Your task to perform on an android device: change the upload size in google photos Image 0: 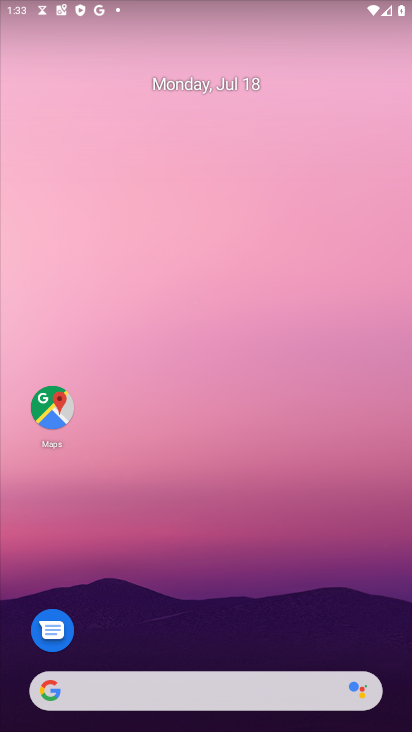
Step 0: drag from (238, 698) to (390, 515)
Your task to perform on an android device: change the upload size in google photos Image 1: 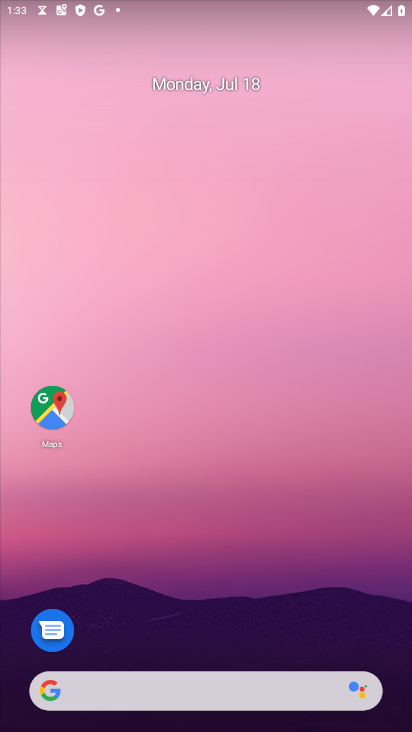
Step 1: drag from (230, 661) to (253, 10)
Your task to perform on an android device: change the upload size in google photos Image 2: 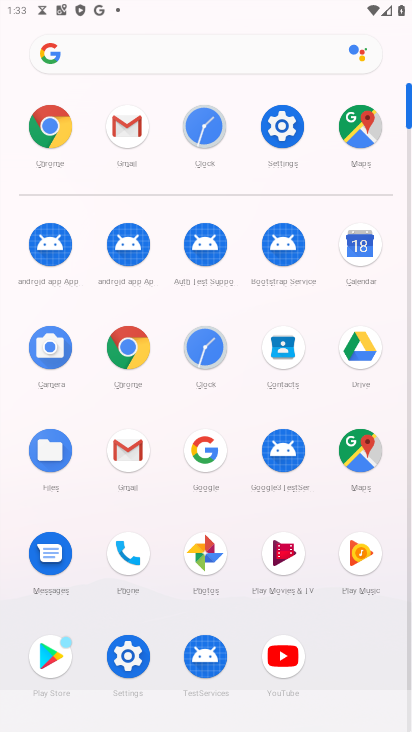
Step 2: click (213, 557)
Your task to perform on an android device: change the upload size in google photos Image 3: 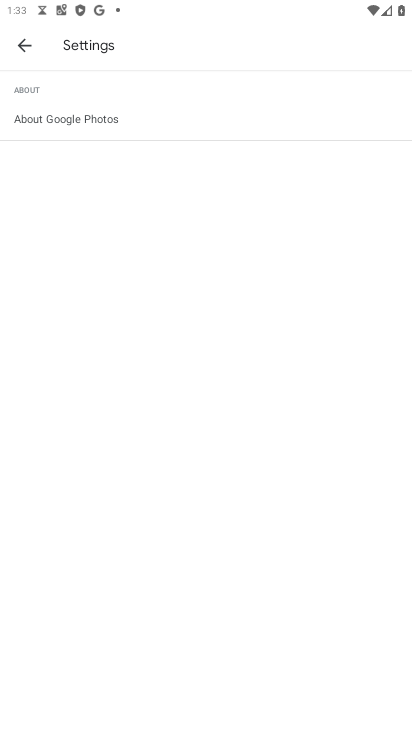
Step 3: press back button
Your task to perform on an android device: change the upload size in google photos Image 4: 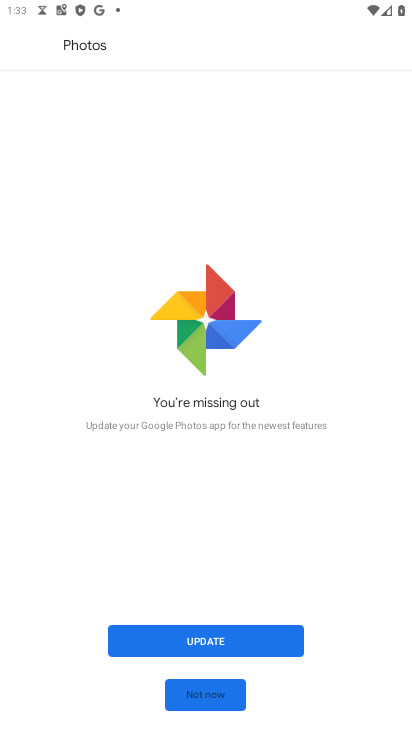
Step 4: click (241, 648)
Your task to perform on an android device: change the upload size in google photos Image 5: 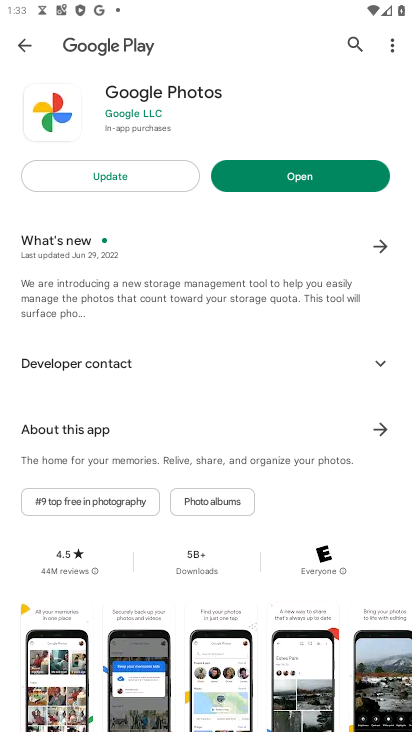
Step 5: click (152, 169)
Your task to perform on an android device: change the upload size in google photos Image 6: 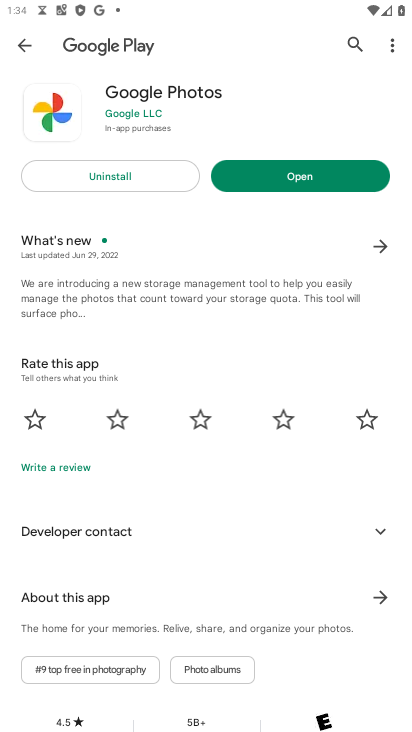
Step 6: click (336, 176)
Your task to perform on an android device: change the upload size in google photos Image 7: 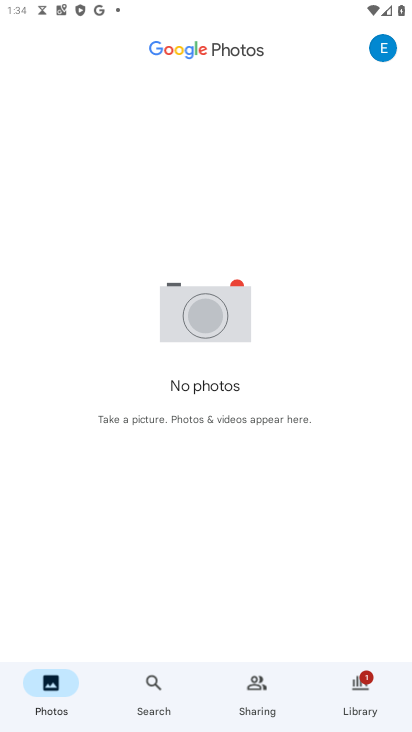
Step 7: click (374, 45)
Your task to perform on an android device: change the upload size in google photos Image 8: 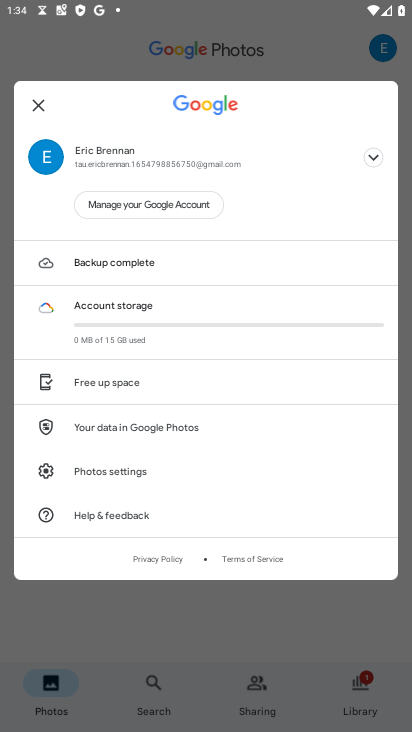
Step 8: click (122, 466)
Your task to perform on an android device: change the upload size in google photos Image 9: 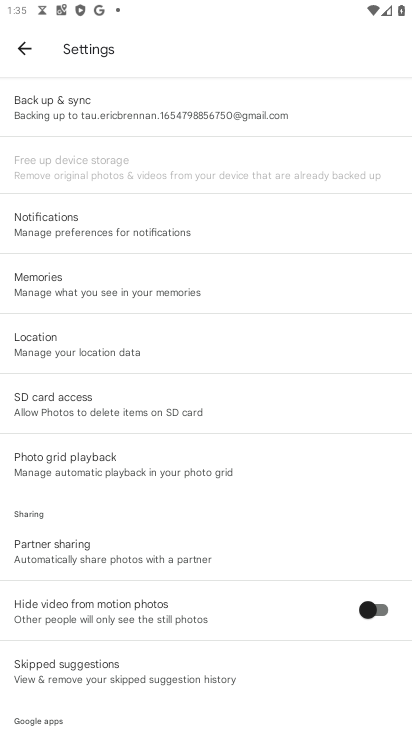
Step 9: click (209, 107)
Your task to perform on an android device: change the upload size in google photos Image 10: 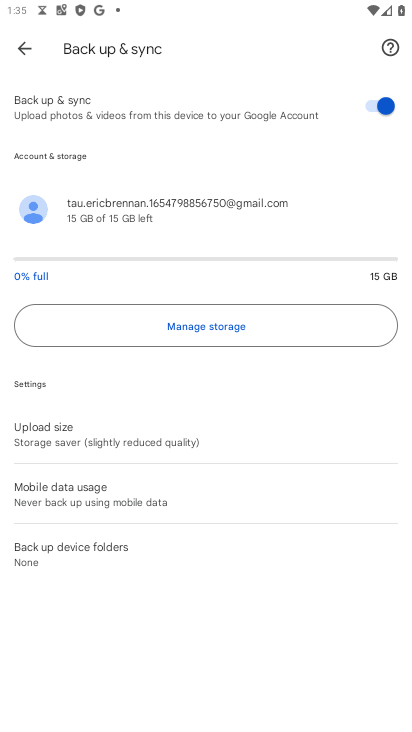
Step 10: click (152, 449)
Your task to perform on an android device: change the upload size in google photos Image 11: 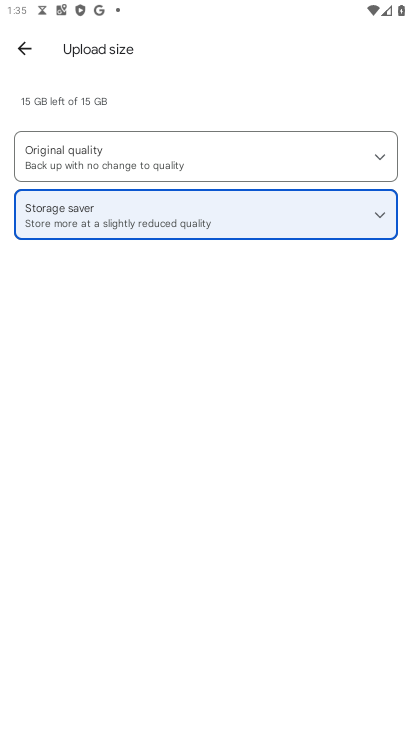
Step 11: click (105, 163)
Your task to perform on an android device: change the upload size in google photos Image 12: 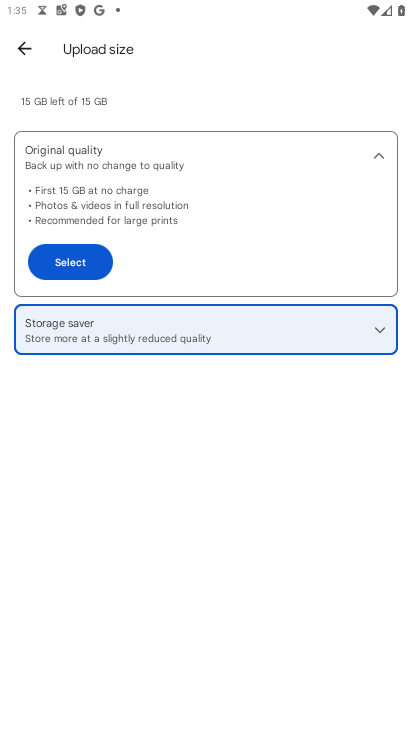
Step 12: click (67, 250)
Your task to perform on an android device: change the upload size in google photos Image 13: 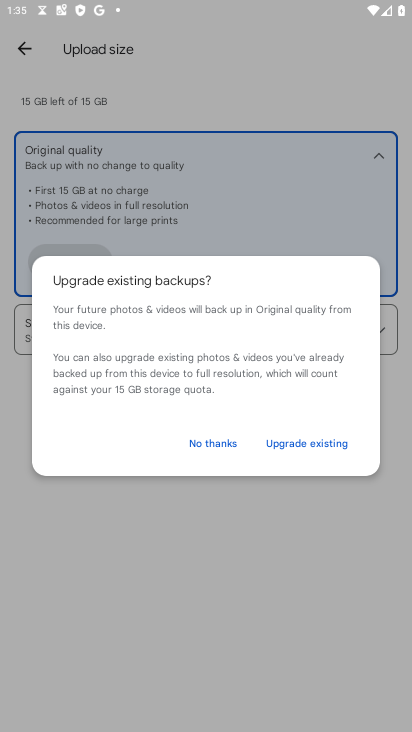
Step 13: click (295, 444)
Your task to perform on an android device: change the upload size in google photos Image 14: 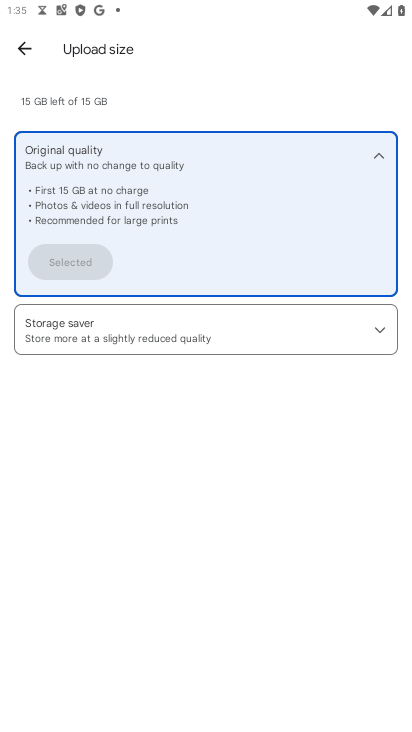
Step 14: task complete